Your task to perform on an android device: Go to calendar. Show me events next week Image 0: 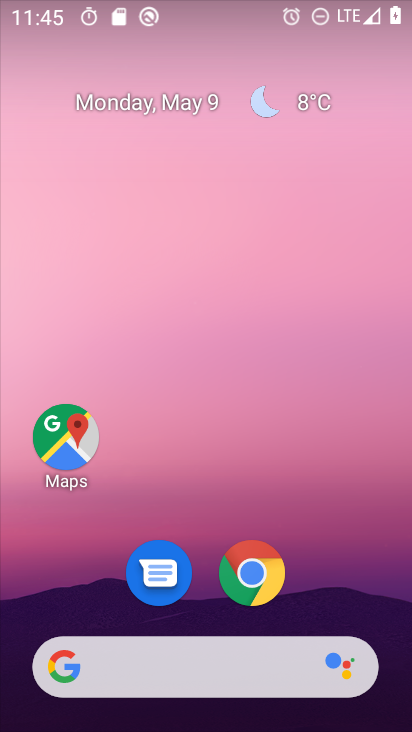
Step 0: drag from (361, 586) to (193, 130)
Your task to perform on an android device: Go to calendar. Show me events next week Image 1: 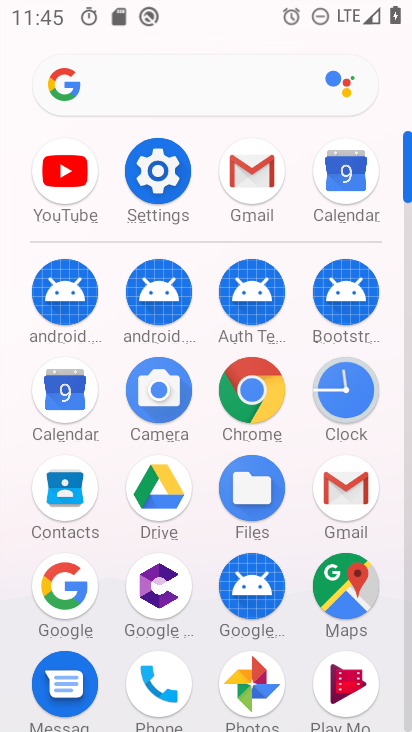
Step 1: click (57, 397)
Your task to perform on an android device: Go to calendar. Show me events next week Image 2: 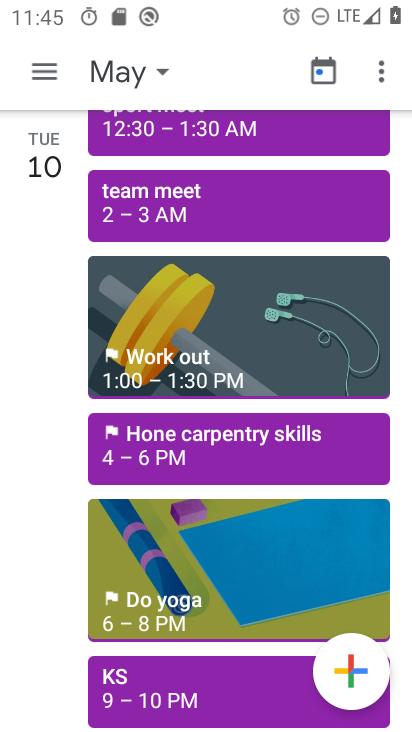
Step 2: click (101, 68)
Your task to perform on an android device: Go to calendar. Show me events next week Image 3: 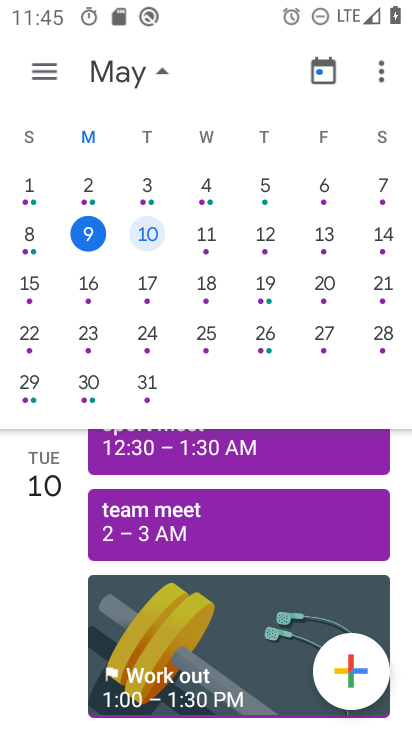
Step 3: click (151, 276)
Your task to perform on an android device: Go to calendar. Show me events next week Image 4: 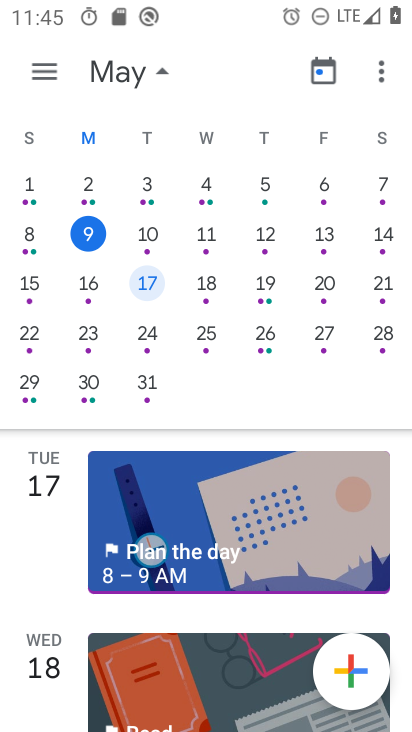
Step 4: task complete